Your task to perform on an android device: change the clock display to analog Image 0: 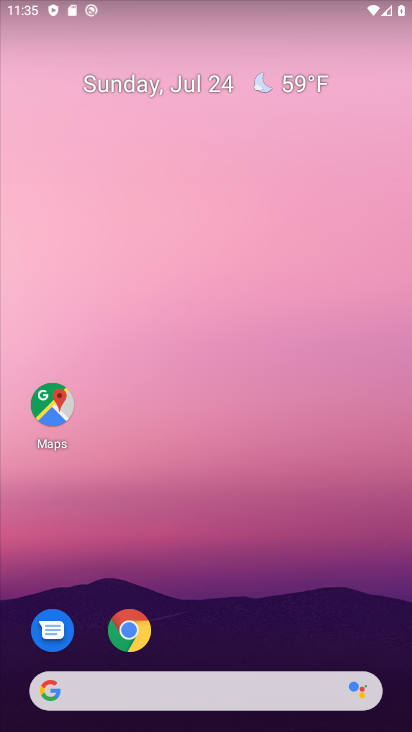
Step 0: drag from (251, 657) to (252, 74)
Your task to perform on an android device: change the clock display to analog Image 1: 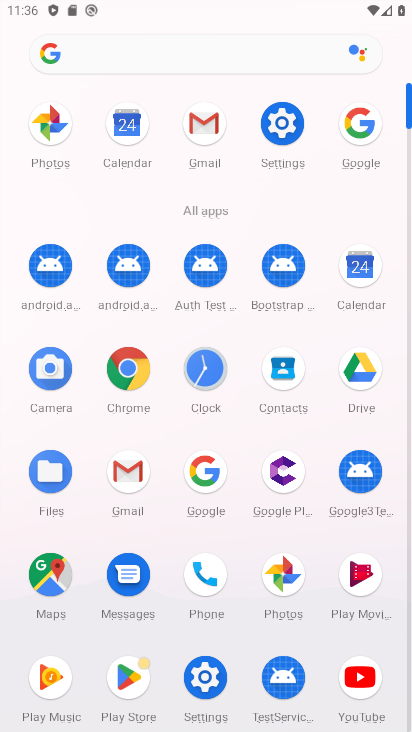
Step 1: click (205, 375)
Your task to perform on an android device: change the clock display to analog Image 2: 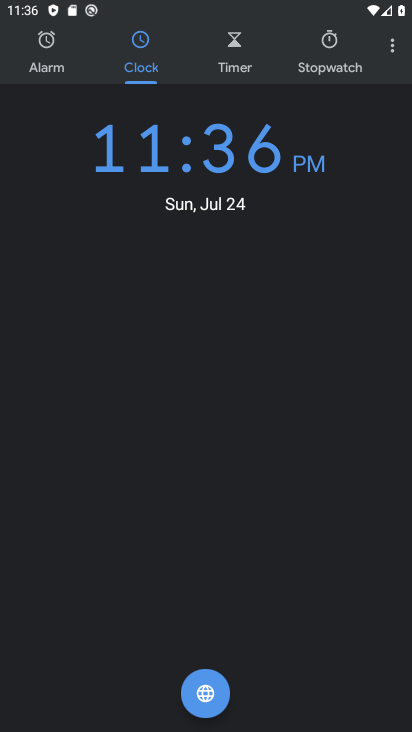
Step 2: click (390, 45)
Your task to perform on an android device: change the clock display to analog Image 3: 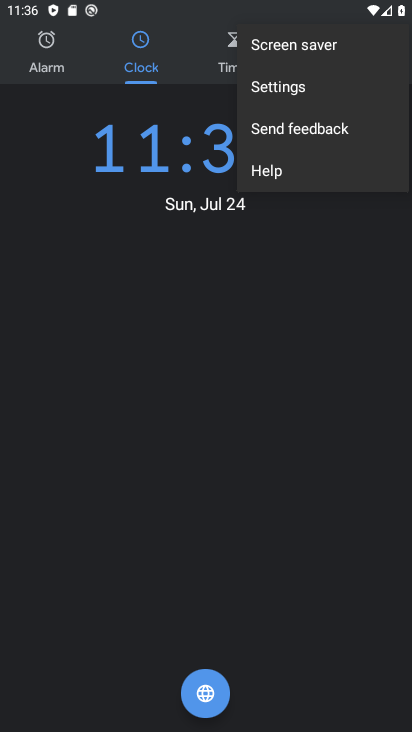
Step 3: click (297, 87)
Your task to perform on an android device: change the clock display to analog Image 4: 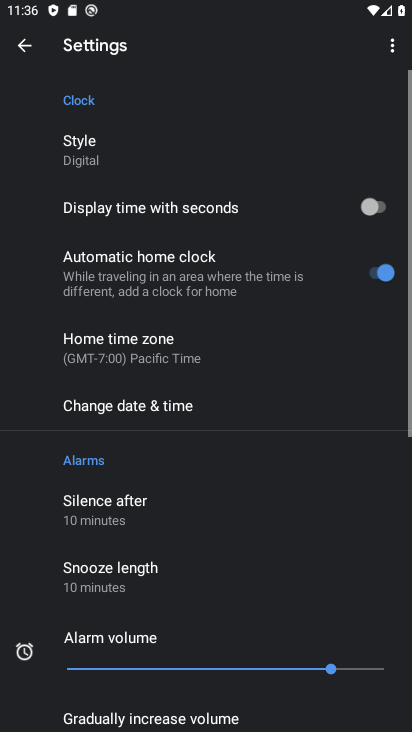
Step 4: click (90, 144)
Your task to perform on an android device: change the clock display to analog Image 5: 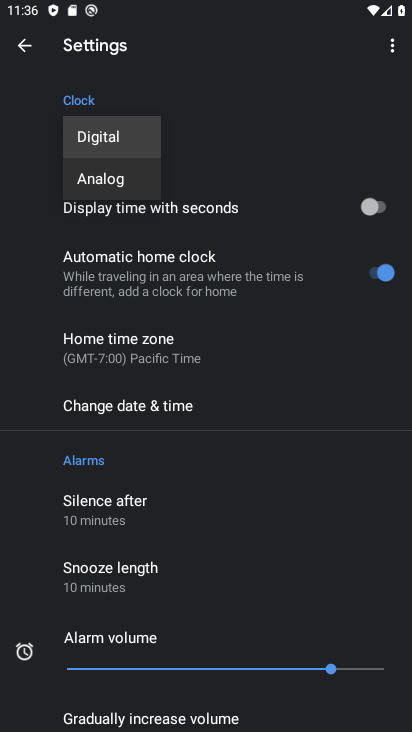
Step 5: click (100, 188)
Your task to perform on an android device: change the clock display to analog Image 6: 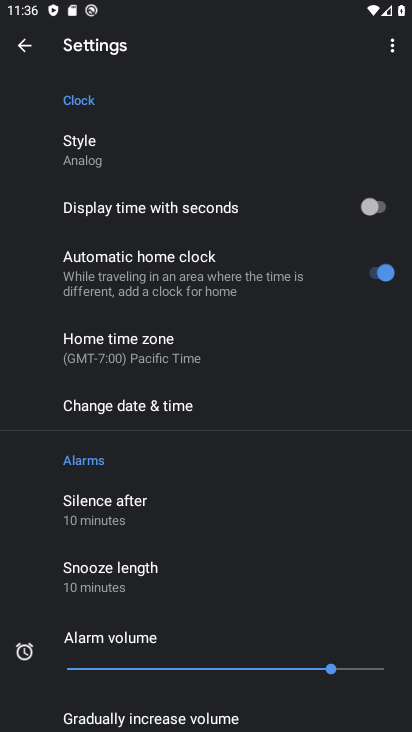
Step 6: task complete